Your task to perform on an android device: turn on showing notifications on the lock screen Image 0: 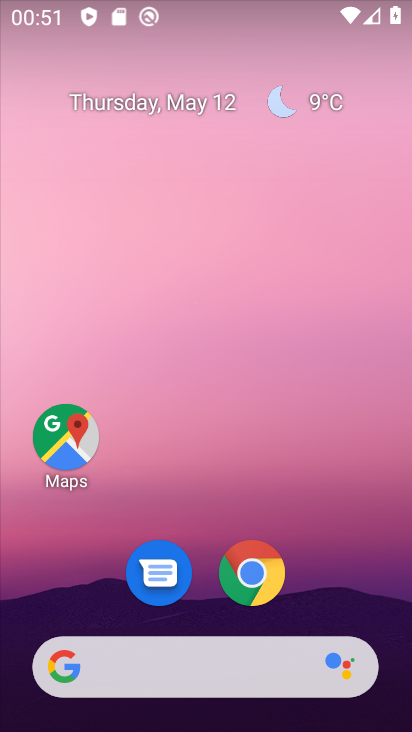
Step 0: drag from (233, 39) to (283, 6)
Your task to perform on an android device: turn on showing notifications on the lock screen Image 1: 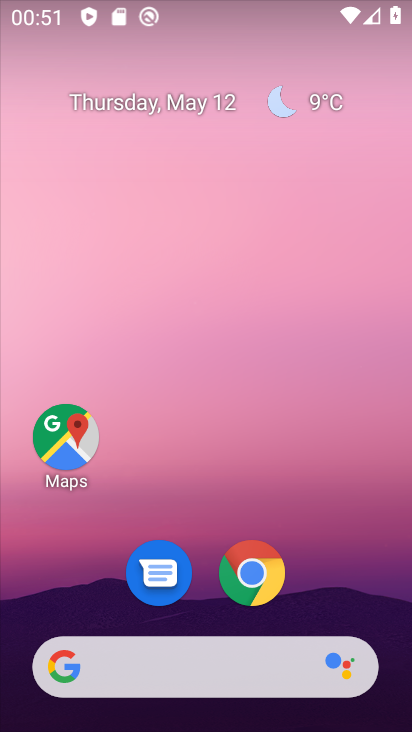
Step 1: drag from (190, 607) to (207, 12)
Your task to perform on an android device: turn on showing notifications on the lock screen Image 2: 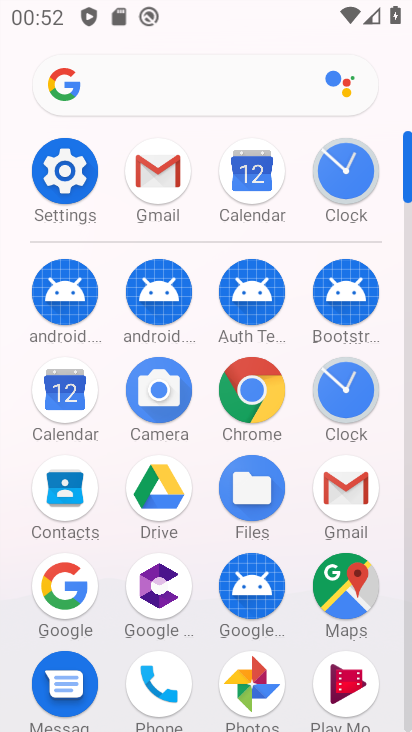
Step 2: click (34, 188)
Your task to perform on an android device: turn on showing notifications on the lock screen Image 3: 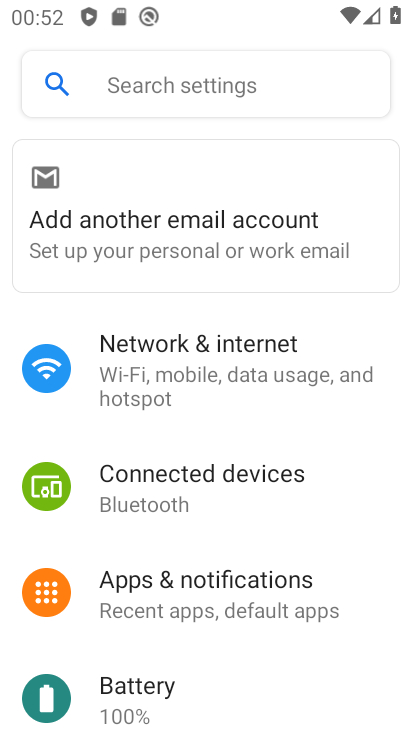
Step 3: click (196, 597)
Your task to perform on an android device: turn on showing notifications on the lock screen Image 4: 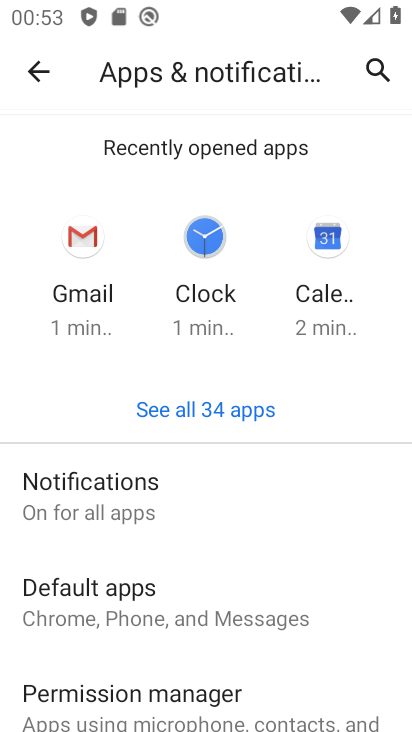
Step 4: drag from (145, 624) to (147, 339)
Your task to perform on an android device: turn on showing notifications on the lock screen Image 5: 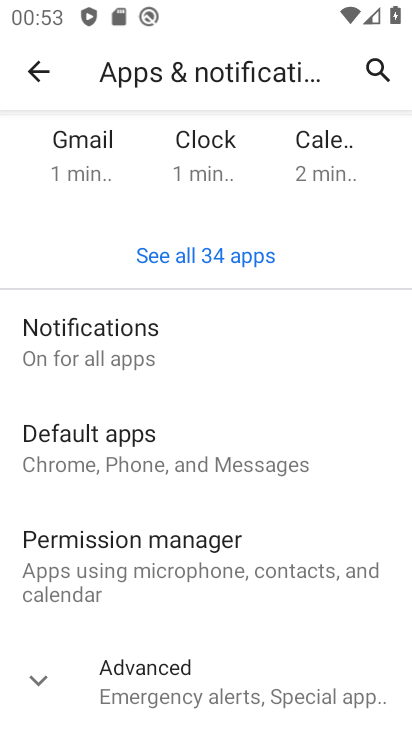
Step 5: click (120, 345)
Your task to perform on an android device: turn on showing notifications on the lock screen Image 6: 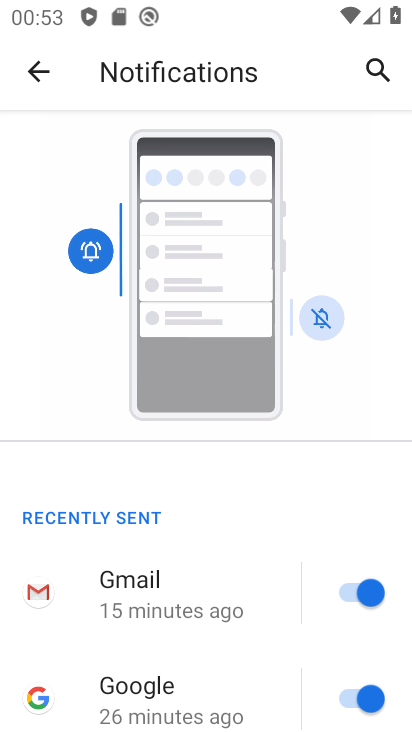
Step 6: drag from (163, 661) to (208, 342)
Your task to perform on an android device: turn on showing notifications on the lock screen Image 7: 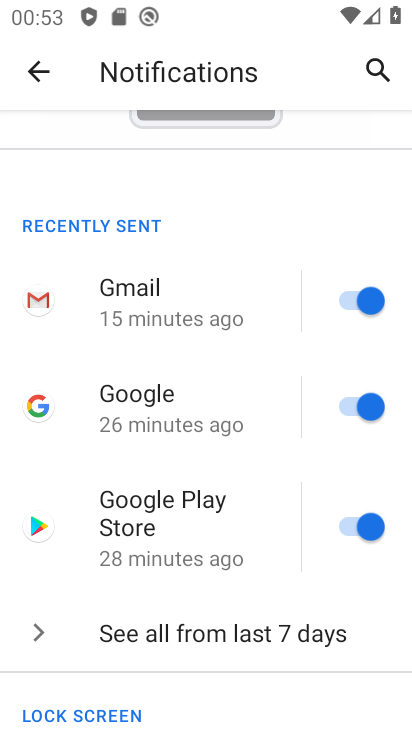
Step 7: drag from (179, 601) to (221, 204)
Your task to perform on an android device: turn on showing notifications on the lock screen Image 8: 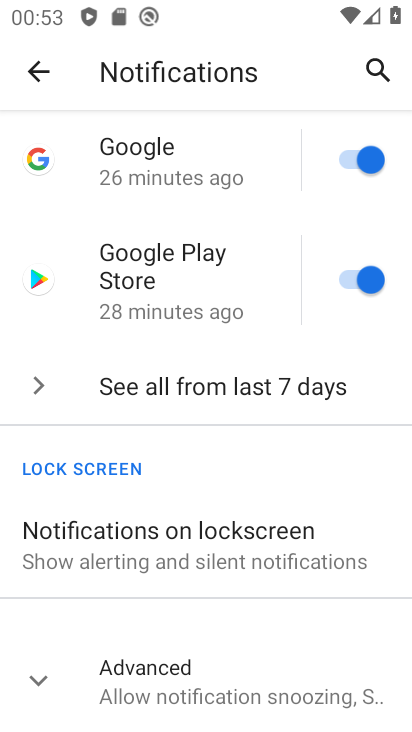
Step 8: click (143, 570)
Your task to perform on an android device: turn on showing notifications on the lock screen Image 9: 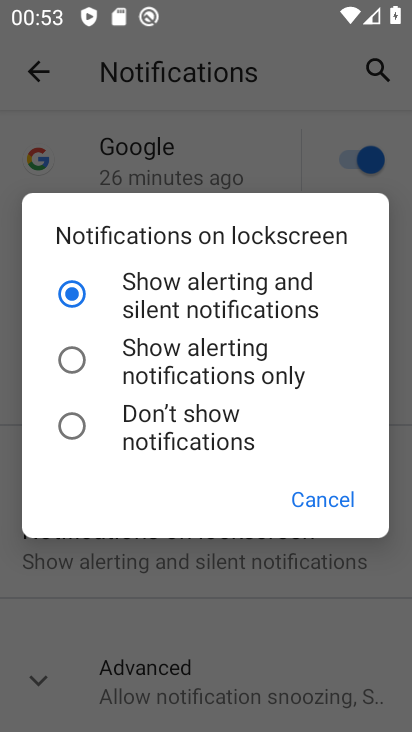
Step 9: task complete